Your task to perform on an android device: Show me popular games on the Play Store Image 0: 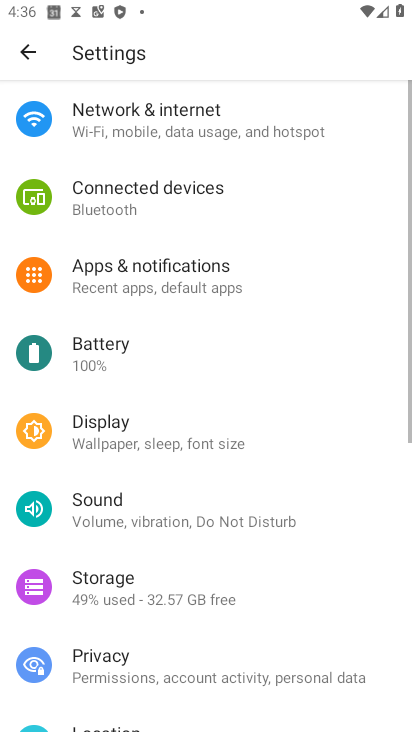
Step 0: press back button
Your task to perform on an android device: Show me popular games on the Play Store Image 1: 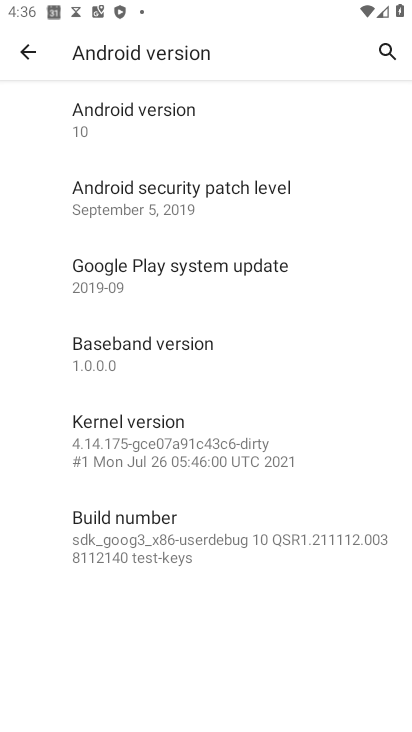
Step 1: click (25, 54)
Your task to perform on an android device: Show me popular games on the Play Store Image 2: 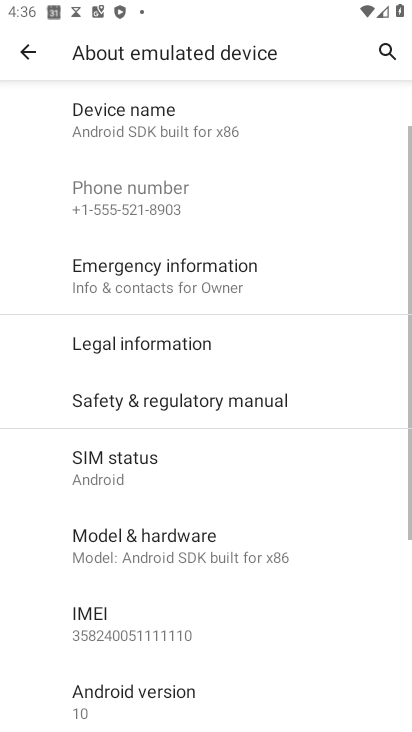
Step 2: click (12, 50)
Your task to perform on an android device: Show me popular games on the Play Store Image 3: 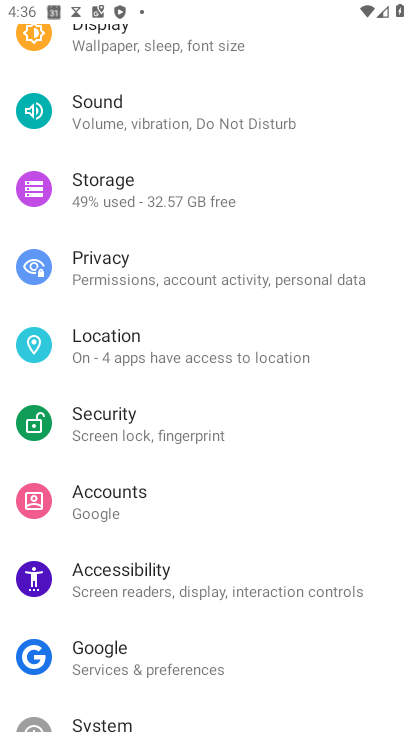
Step 3: press home button
Your task to perform on an android device: Show me popular games on the Play Store Image 4: 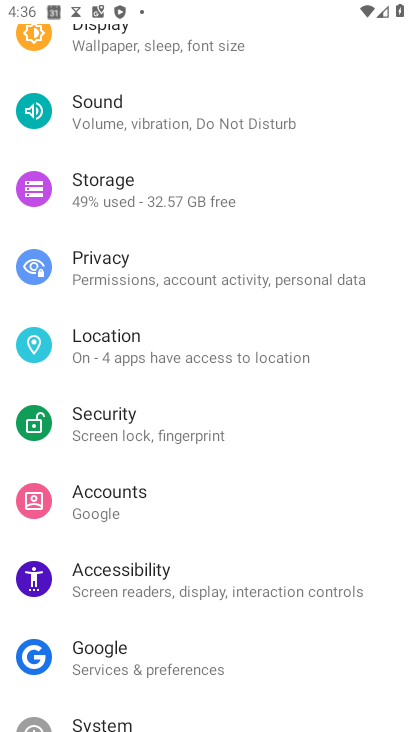
Step 4: press home button
Your task to perform on an android device: Show me popular games on the Play Store Image 5: 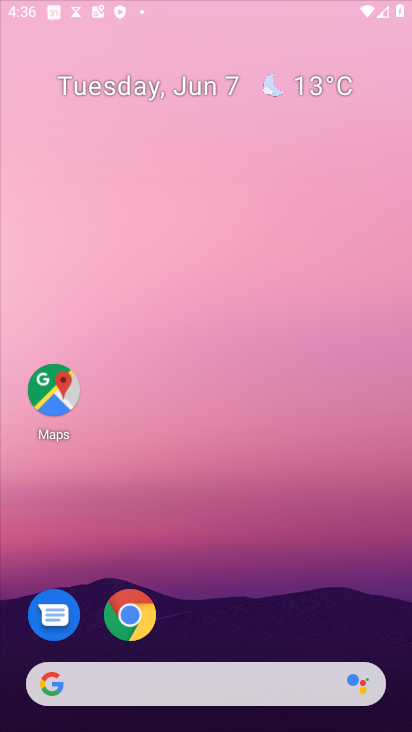
Step 5: press home button
Your task to perform on an android device: Show me popular games on the Play Store Image 6: 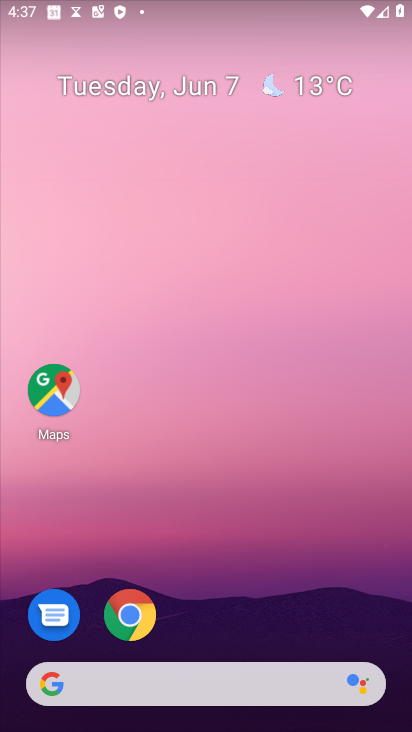
Step 6: press home button
Your task to perform on an android device: Show me popular games on the Play Store Image 7: 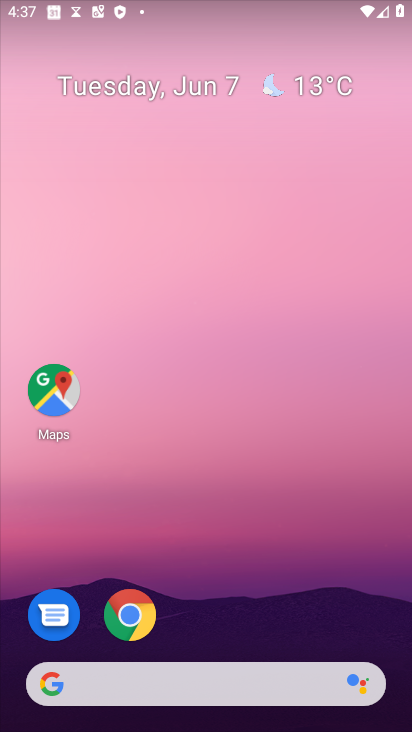
Step 7: drag from (205, 703) to (86, 297)
Your task to perform on an android device: Show me popular games on the Play Store Image 8: 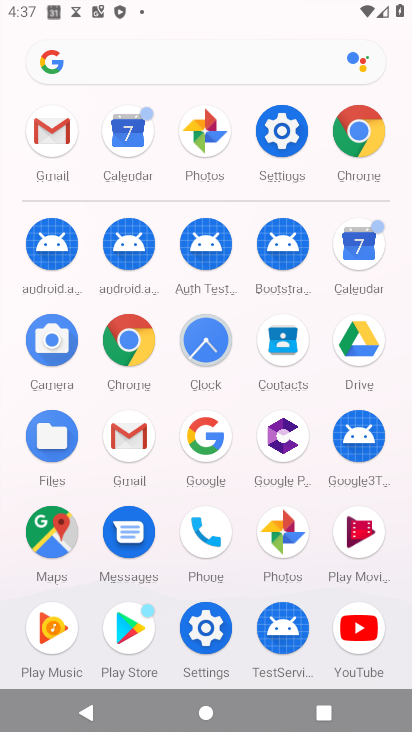
Step 8: click (147, 627)
Your task to perform on an android device: Show me popular games on the Play Store Image 9: 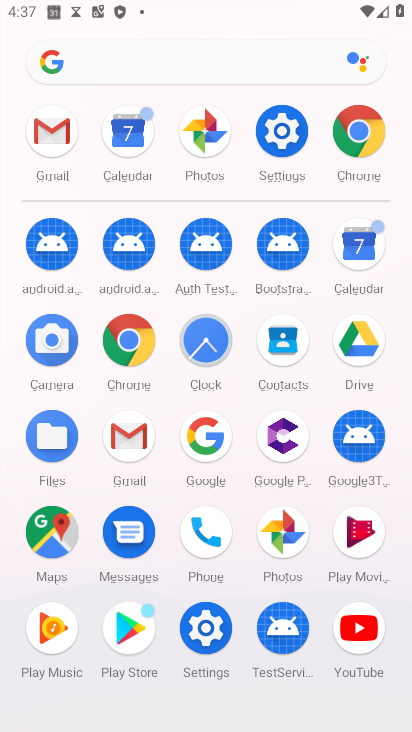
Step 9: click (147, 627)
Your task to perform on an android device: Show me popular games on the Play Store Image 10: 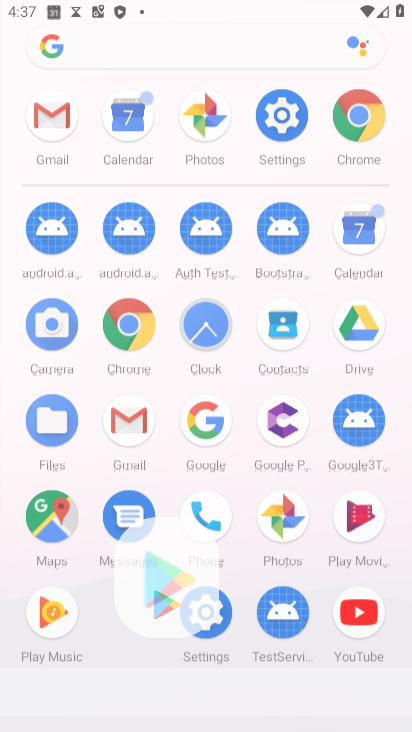
Step 10: click (146, 629)
Your task to perform on an android device: Show me popular games on the Play Store Image 11: 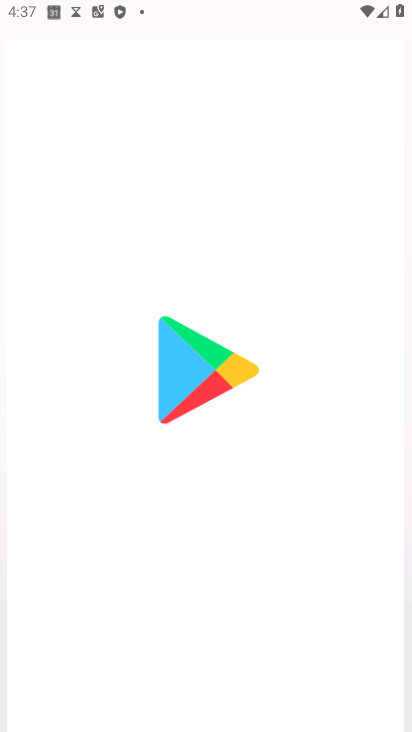
Step 11: click (146, 629)
Your task to perform on an android device: Show me popular games on the Play Store Image 12: 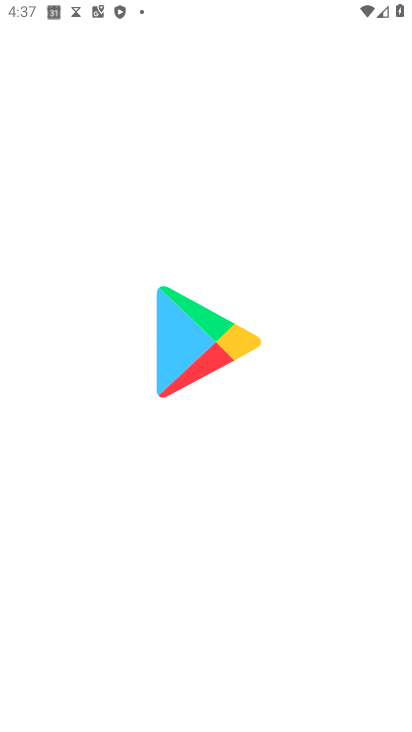
Step 12: click (144, 634)
Your task to perform on an android device: Show me popular games on the Play Store Image 13: 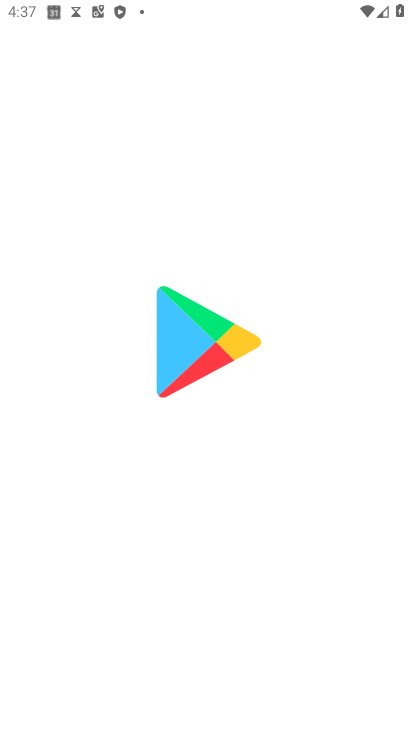
Step 13: click (144, 634)
Your task to perform on an android device: Show me popular games on the Play Store Image 14: 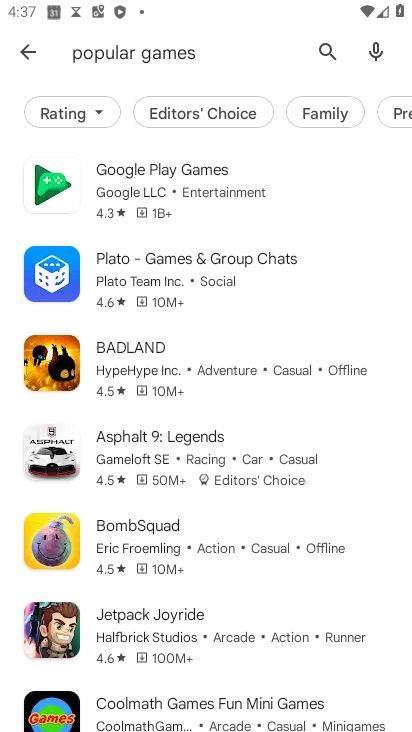
Step 14: task complete